Your task to perform on an android device: turn on the 12-hour format for clock Image 0: 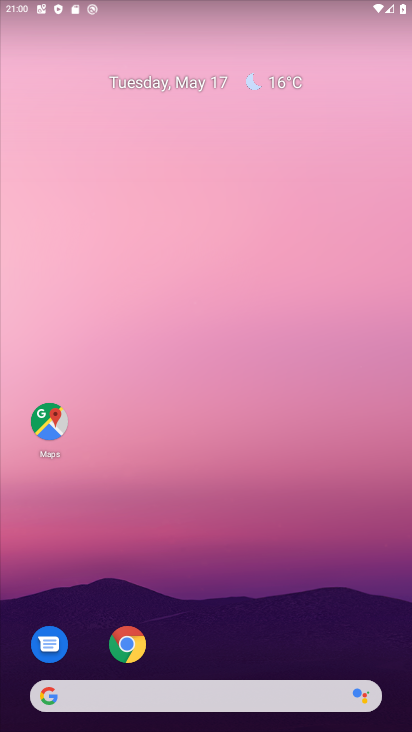
Step 0: drag from (231, 635) to (349, 87)
Your task to perform on an android device: turn on the 12-hour format for clock Image 1: 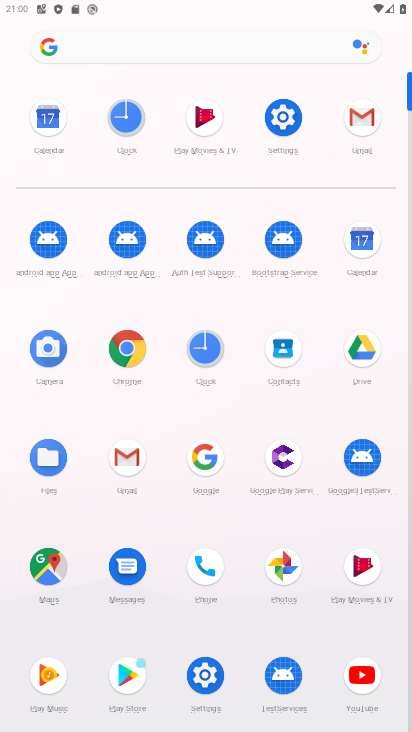
Step 1: click (207, 345)
Your task to perform on an android device: turn on the 12-hour format for clock Image 2: 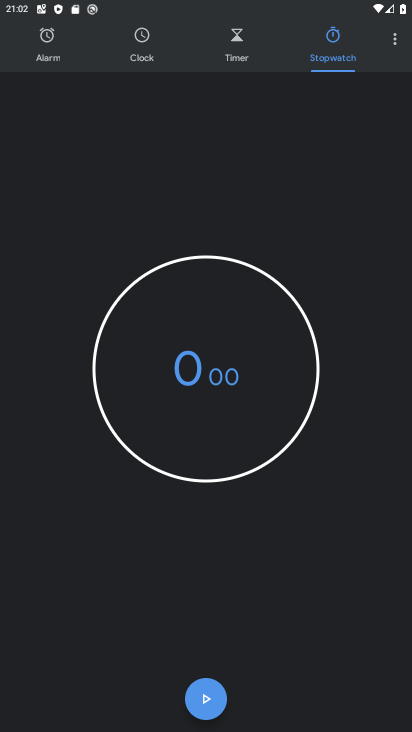
Step 2: click (390, 36)
Your task to perform on an android device: turn on the 12-hour format for clock Image 3: 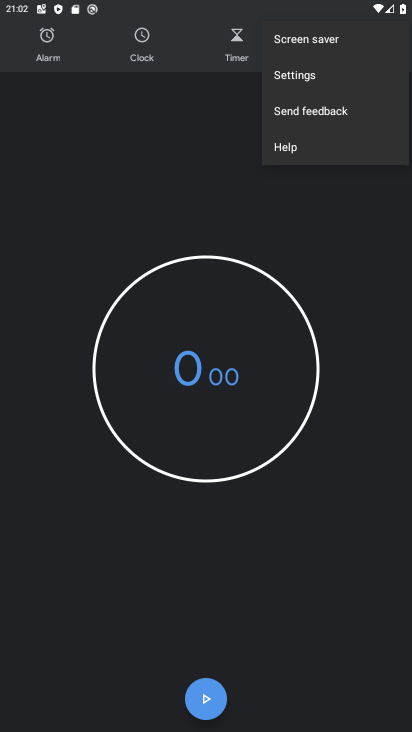
Step 3: click (297, 71)
Your task to perform on an android device: turn on the 12-hour format for clock Image 4: 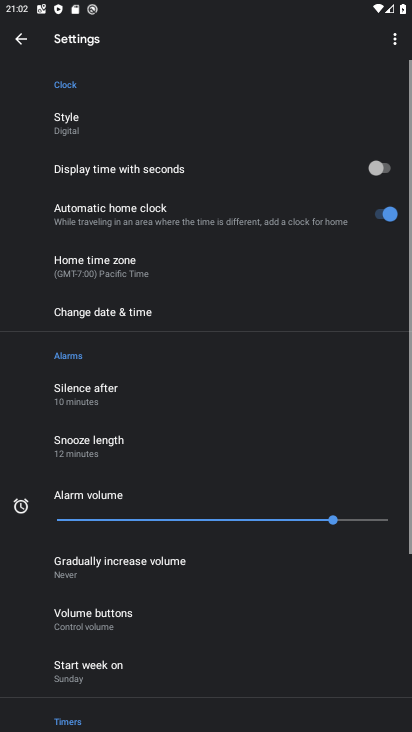
Step 4: click (114, 306)
Your task to perform on an android device: turn on the 12-hour format for clock Image 5: 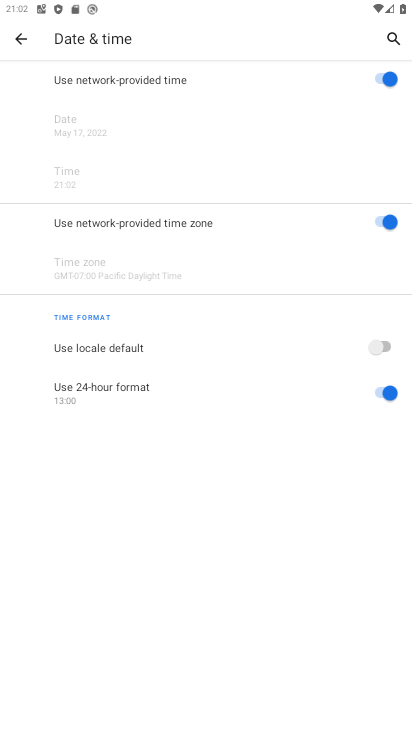
Step 5: click (378, 391)
Your task to perform on an android device: turn on the 12-hour format for clock Image 6: 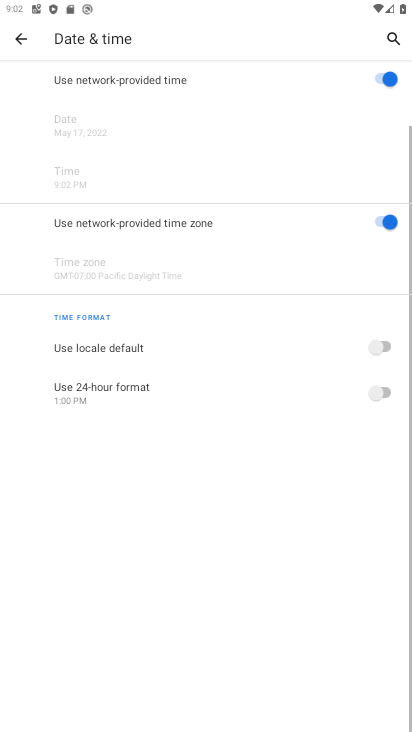
Step 6: click (379, 353)
Your task to perform on an android device: turn on the 12-hour format for clock Image 7: 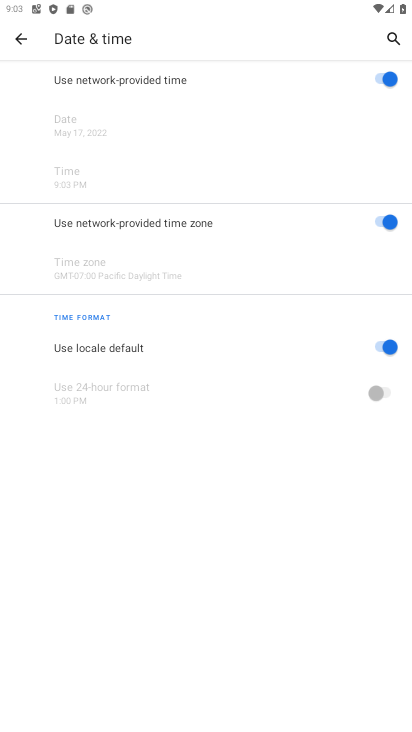
Step 7: task complete